Your task to perform on an android device: Find coffee shops on Maps Image 0: 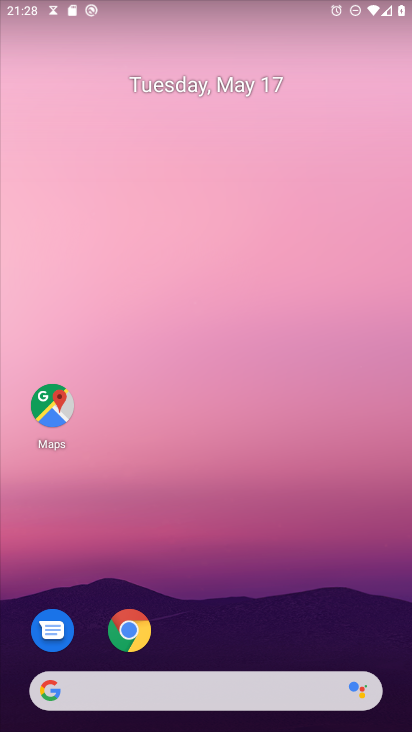
Step 0: click (49, 422)
Your task to perform on an android device: Find coffee shops on Maps Image 1: 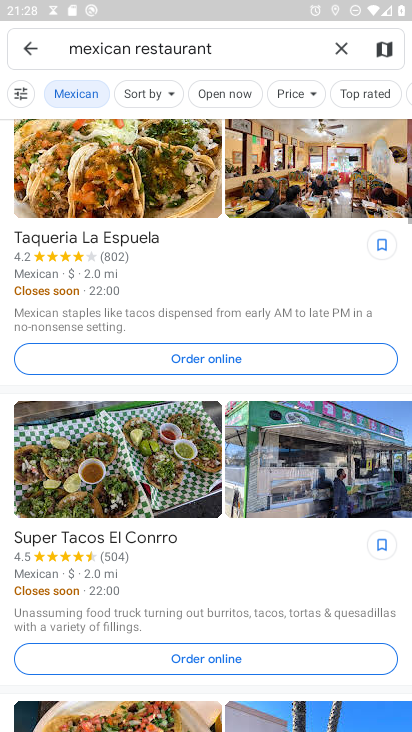
Step 1: click (345, 49)
Your task to perform on an android device: Find coffee shops on Maps Image 2: 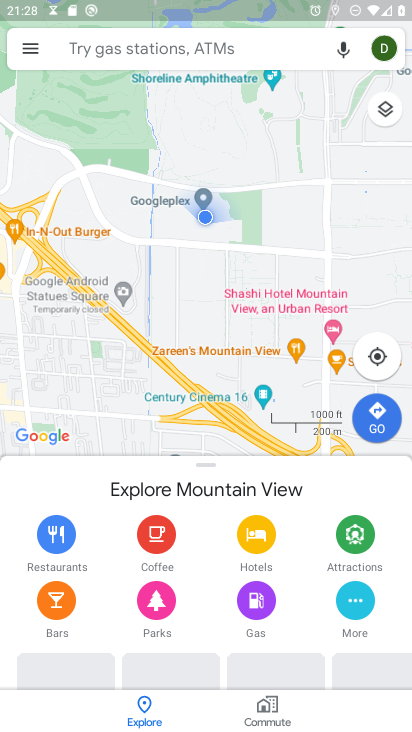
Step 2: click (273, 44)
Your task to perform on an android device: Find coffee shops on Maps Image 3: 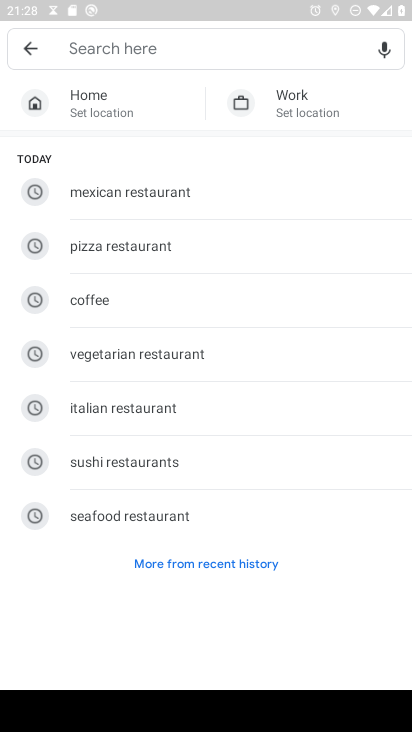
Step 3: click (88, 304)
Your task to perform on an android device: Find coffee shops on Maps Image 4: 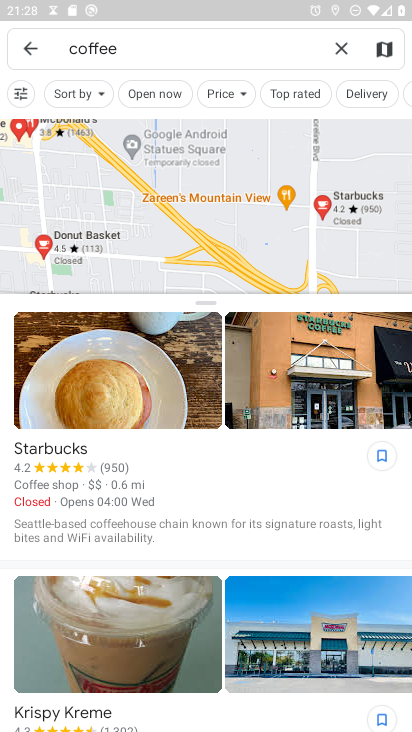
Step 4: task complete